Your task to perform on an android device: delete a single message in the gmail app Image 0: 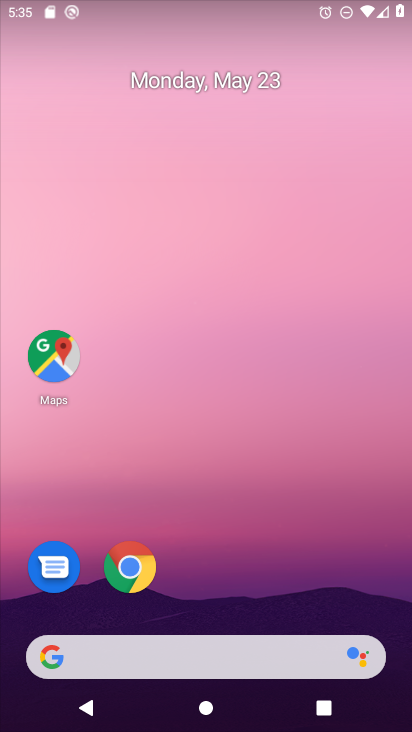
Step 0: drag from (272, 588) to (214, 154)
Your task to perform on an android device: delete a single message in the gmail app Image 1: 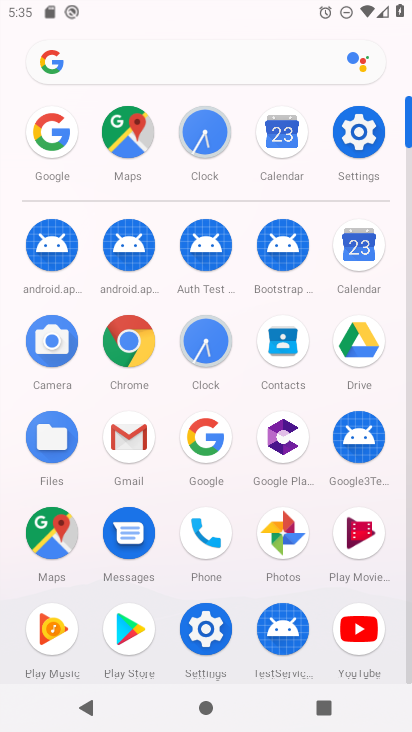
Step 1: click (131, 440)
Your task to perform on an android device: delete a single message in the gmail app Image 2: 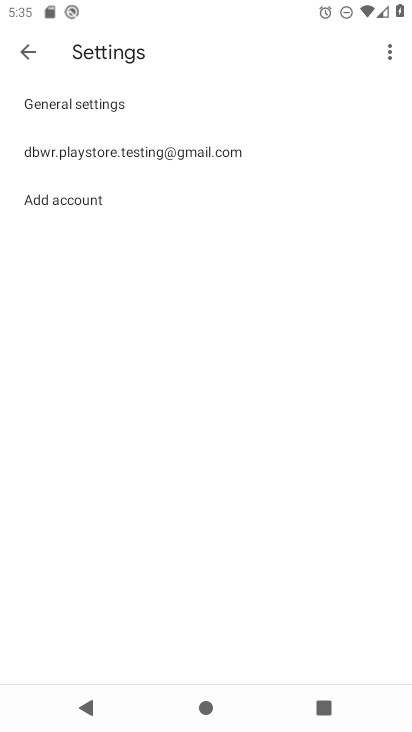
Step 2: click (27, 61)
Your task to perform on an android device: delete a single message in the gmail app Image 3: 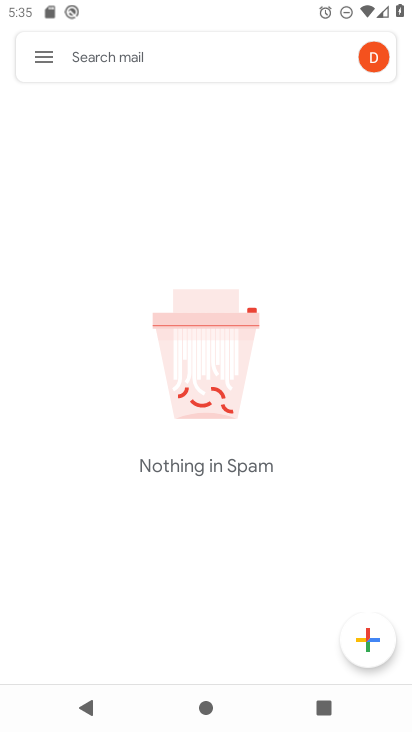
Step 3: click (54, 63)
Your task to perform on an android device: delete a single message in the gmail app Image 4: 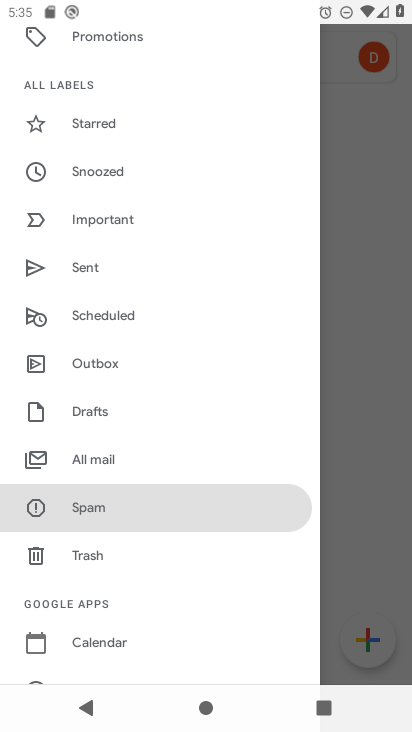
Step 4: drag from (106, 563) to (123, 425)
Your task to perform on an android device: delete a single message in the gmail app Image 5: 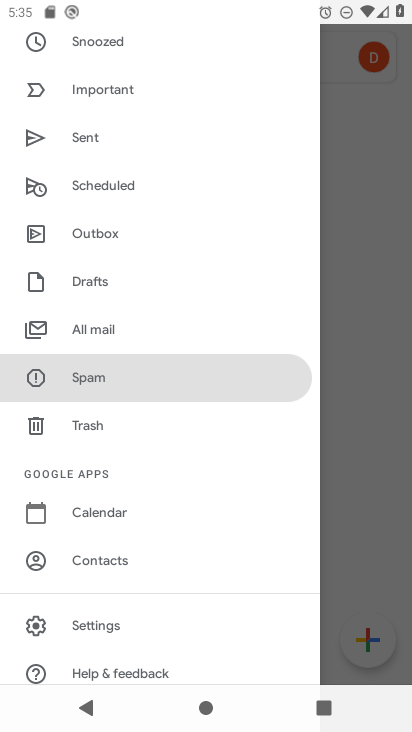
Step 5: drag from (115, 599) to (150, 478)
Your task to perform on an android device: delete a single message in the gmail app Image 6: 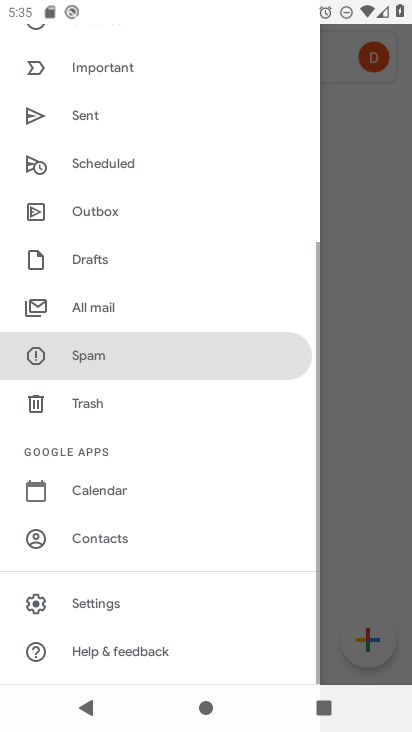
Step 6: click (85, 316)
Your task to perform on an android device: delete a single message in the gmail app Image 7: 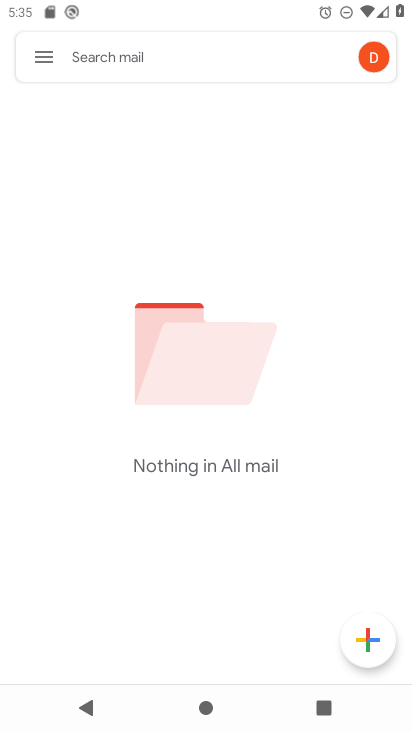
Step 7: click (36, 61)
Your task to perform on an android device: delete a single message in the gmail app Image 8: 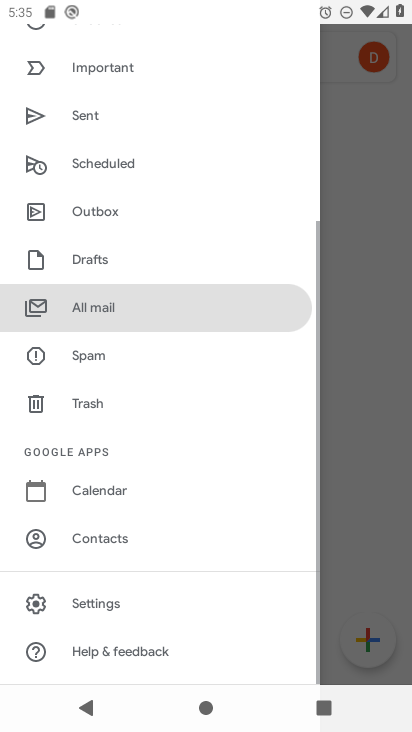
Step 8: task complete